Your task to perform on an android device: Open Android settings Image 0: 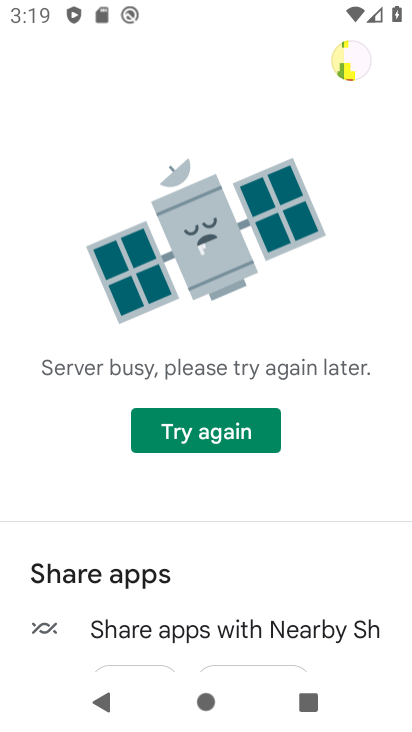
Step 0: press home button
Your task to perform on an android device: Open Android settings Image 1: 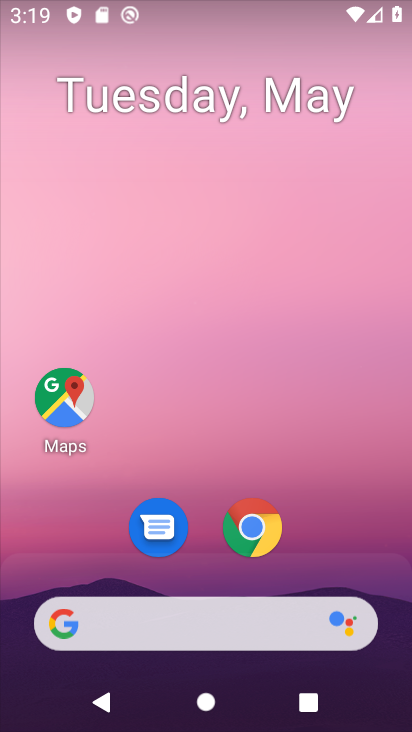
Step 1: drag from (182, 610) to (248, 137)
Your task to perform on an android device: Open Android settings Image 2: 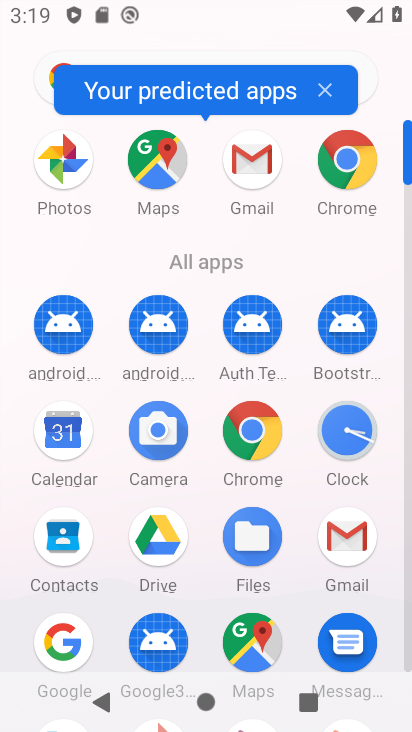
Step 2: drag from (181, 559) to (272, 191)
Your task to perform on an android device: Open Android settings Image 3: 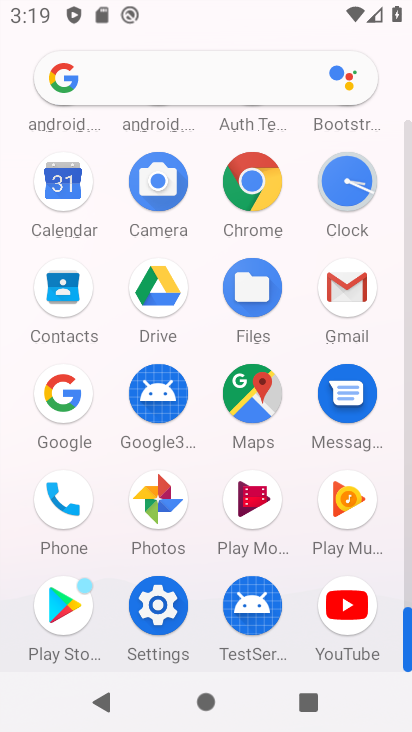
Step 3: click (159, 614)
Your task to perform on an android device: Open Android settings Image 4: 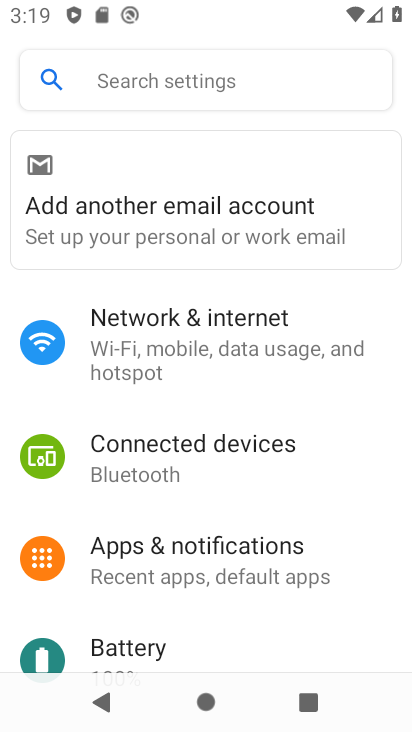
Step 4: task complete